Your task to perform on an android device: open device folders in google photos Image 0: 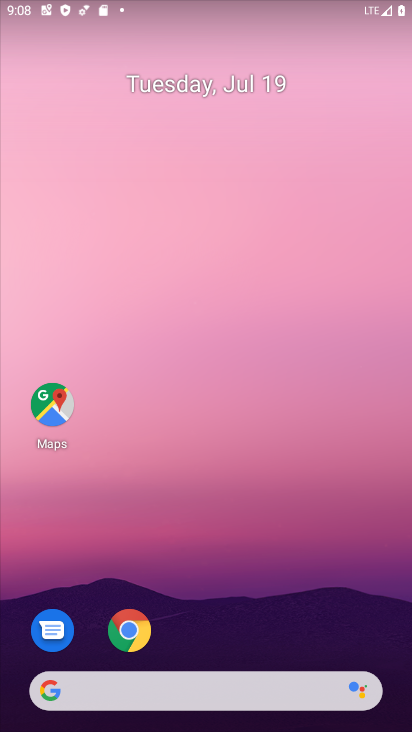
Step 0: drag from (233, 637) to (262, 80)
Your task to perform on an android device: open device folders in google photos Image 1: 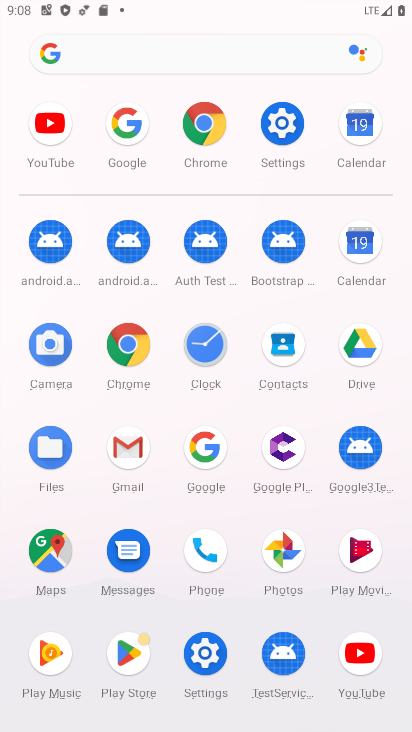
Step 1: click (279, 556)
Your task to perform on an android device: open device folders in google photos Image 2: 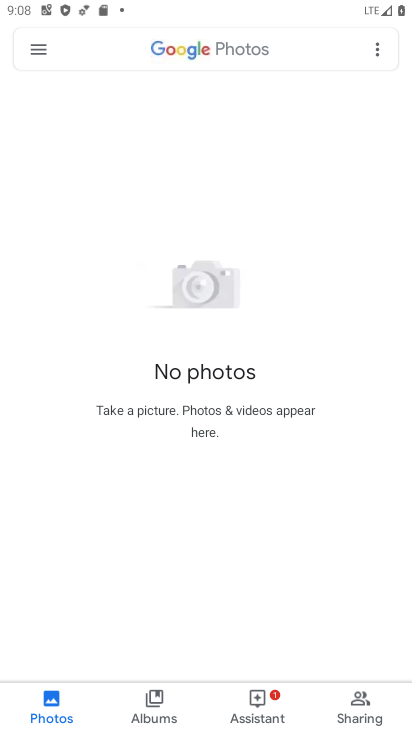
Step 2: click (42, 46)
Your task to perform on an android device: open device folders in google photos Image 3: 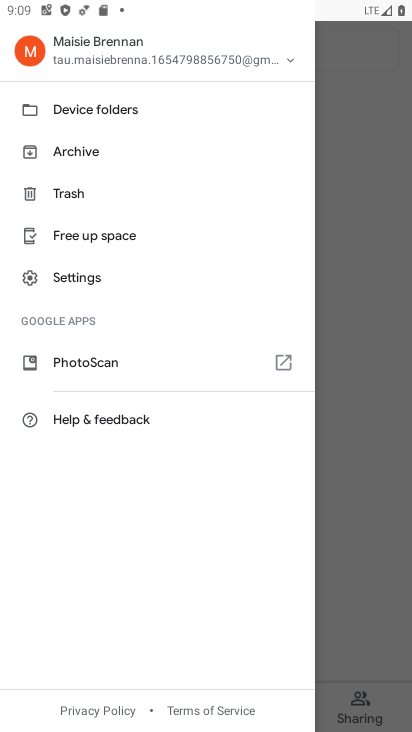
Step 3: click (81, 114)
Your task to perform on an android device: open device folders in google photos Image 4: 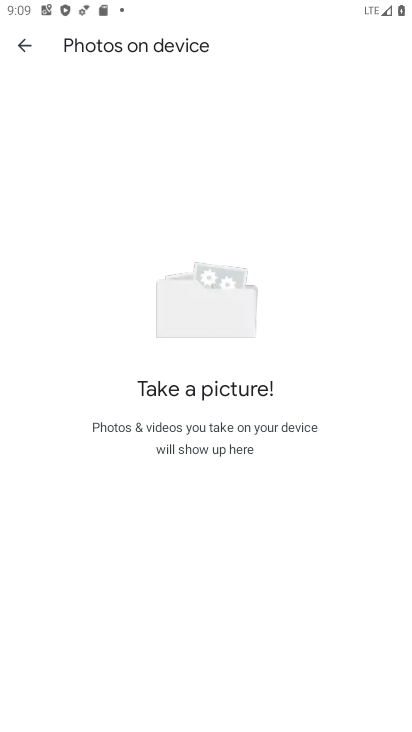
Step 4: task complete